Your task to perform on an android device: Go to network settings Image 0: 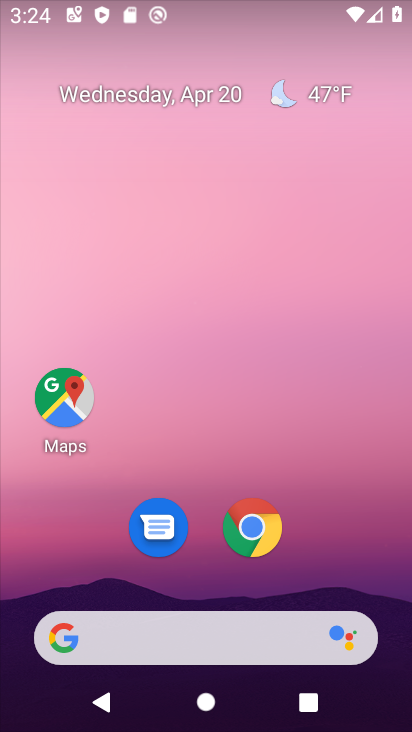
Step 0: drag from (284, 578) to (284, 124)
Your task to perform on an android device: Go to network settings Image 1: 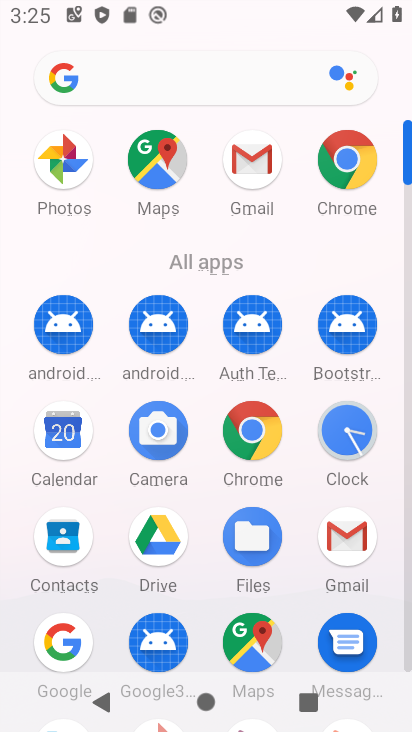
Step 1: drag from (293, 653) to (267, 226)
Your task to perform on an android device: Go to network settings Image 2: 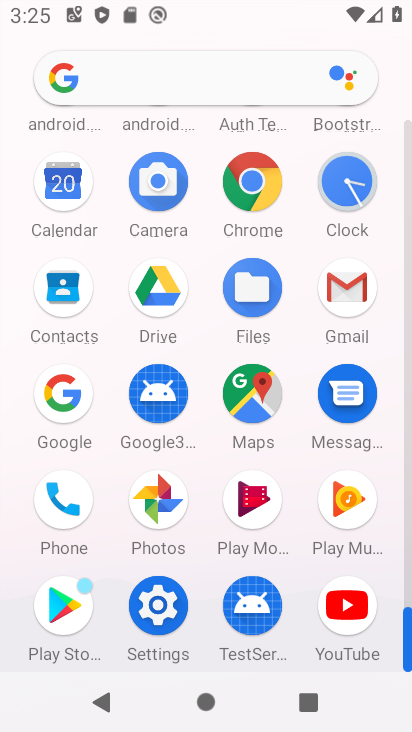
Step 2: click (163, 608)
Your task to perform on an android device: Go to network settings Image 3: 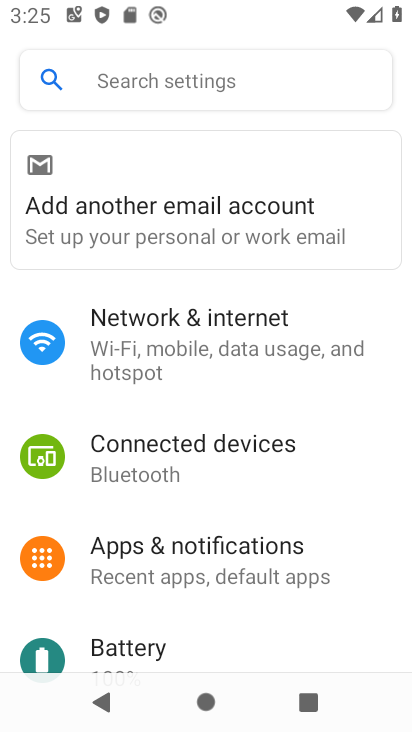
Step 3: click (233, 346)
Your task to perform on an android device: Go to network settings Image 4: 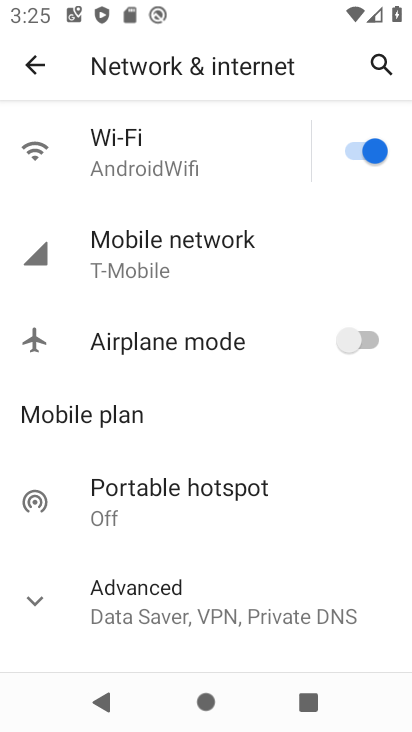
Step 4: task complete